Your task to perform on an android device: refresh tabs in the chrome app Image 0: 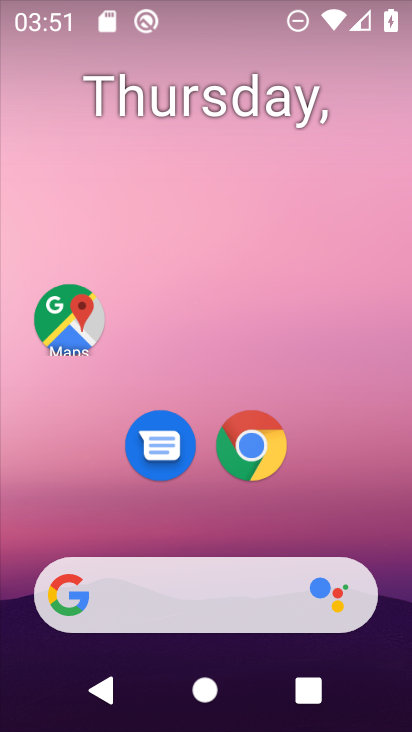
Step 0: click (255, 446)
Your task to perform on an android device: refresh tabs in the chrome app Image 1: 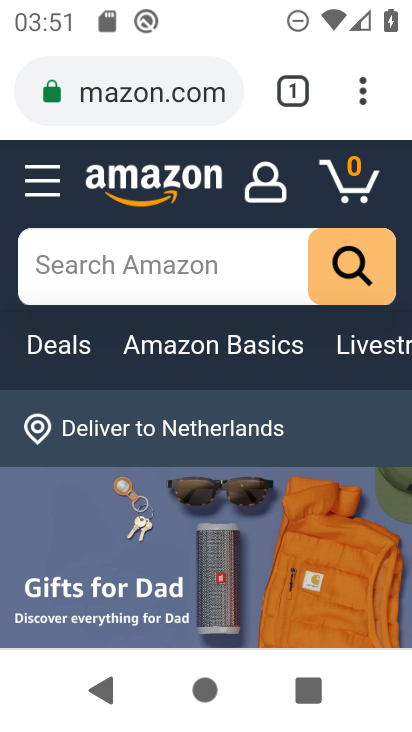
Step 1: click (361, 94)
Your task to perform on an android device: refresh tabs in the chrome app Image 2: 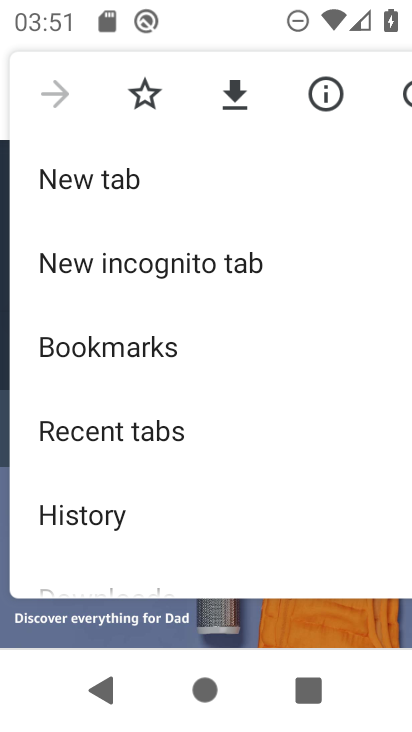
Step 2: click (406, 96)
Your task to perform on an android device: refresh tabs in the chrome app Image 3: 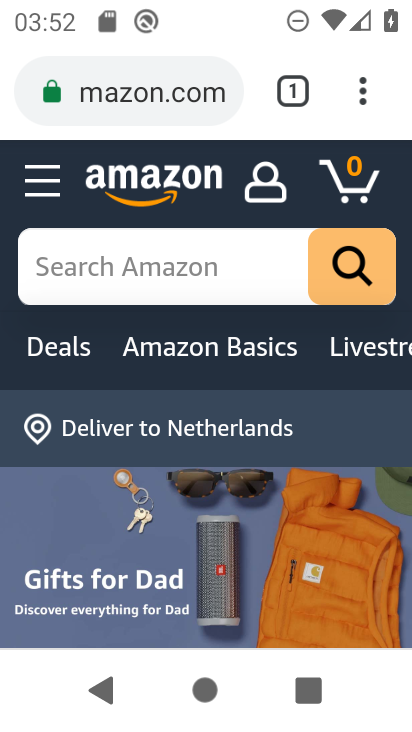
Step 3: click (362, 95)
Your task to perform on an android device: refresh tabs in the chrome app Image 4: 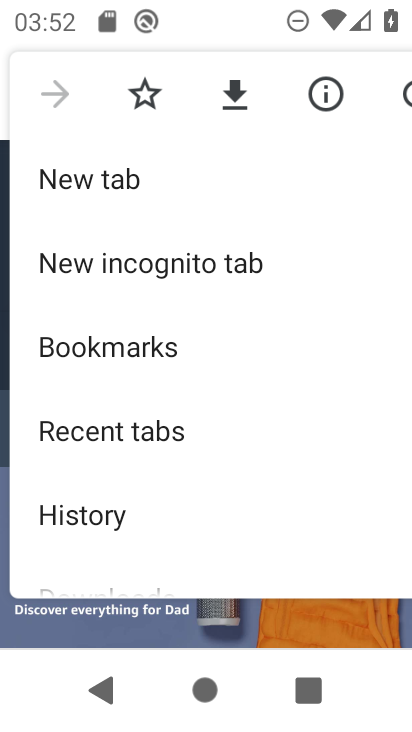
Step 4: click (406, 93)
Your task to perform on an android device: refresh tabs in the chrome app Image 5: 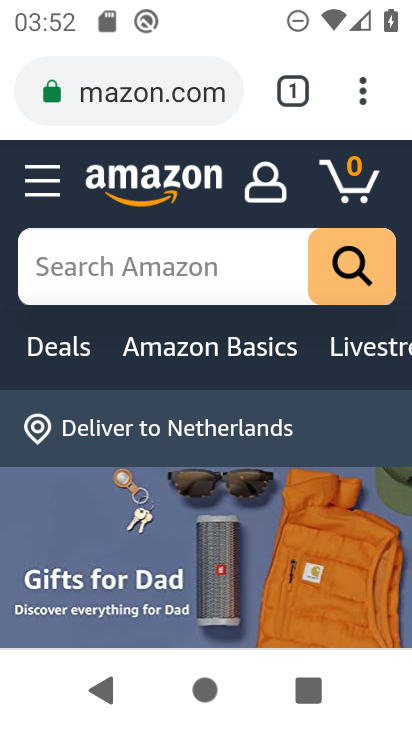
Step 5: task complete